Your task to perform on an android device: remove spam from my inbox in the gmail app Image 0: 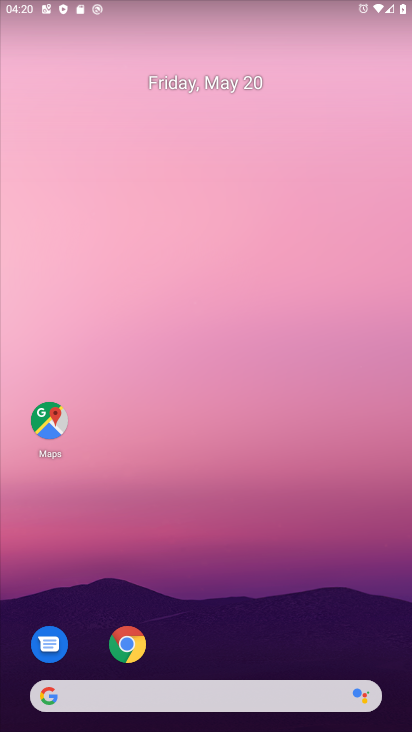
Step 0: drag from (301, 580) to (225, 67)
Your task to perform on an android device: remove spam from my inbox in the gmail app Image 1: 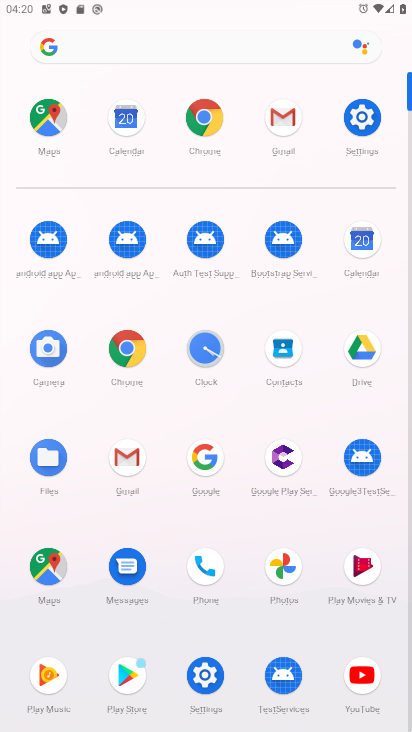
Step 1: click (265, 144)
Your task to perform on an android device: remove spam from my inbox in the gmail app Image 2: 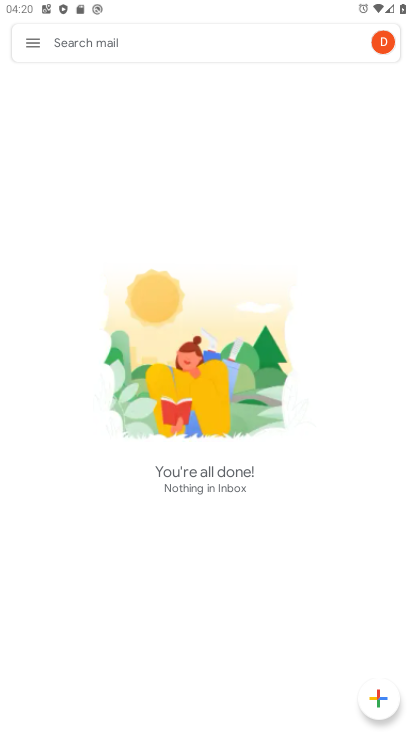
Step 2: click (36, 43)
Your task to perform on an android device: remove spam from my inbox in the gmail app Image 3: 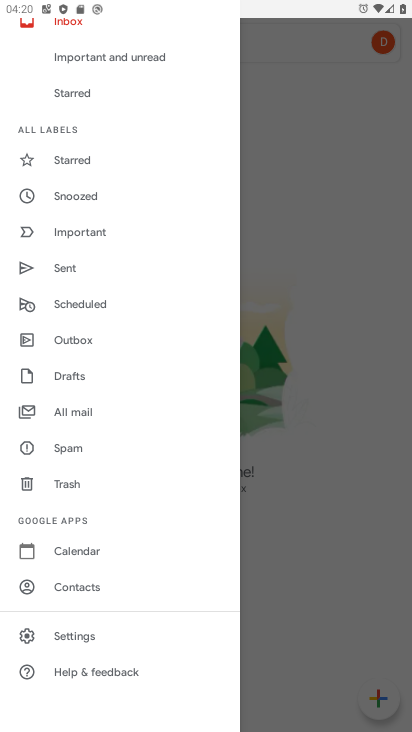
Step 3: click (101, 415)
Your task to perform on an android device: remove spam from my inbox in the gmail app Image 4: 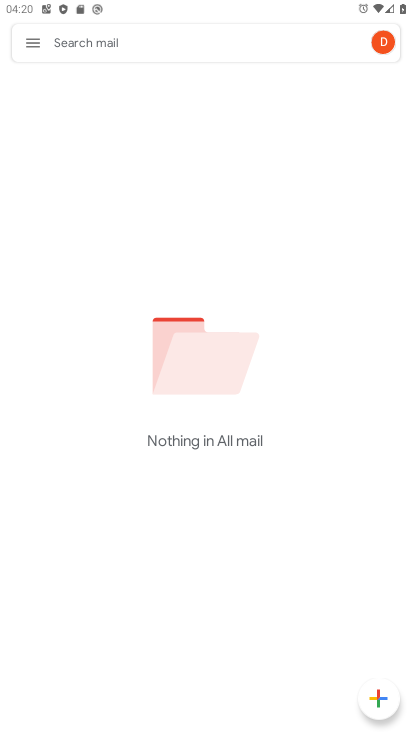
Step 4: task complete